Your task to perform on an android device: turn on the 24-hour format for clock Image 0: 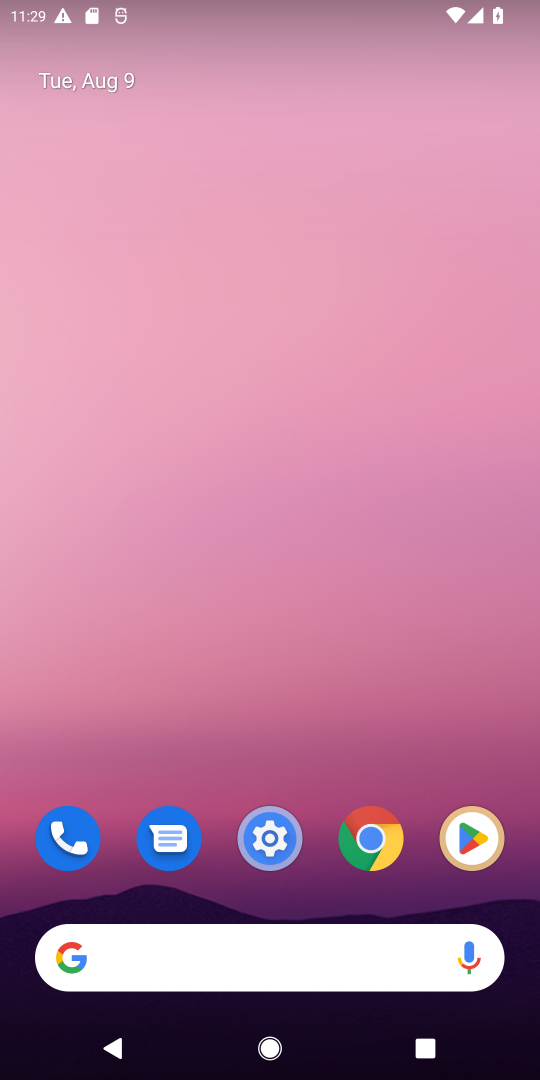
Step 0: drag from (310, 645) to (320, 317)
Your task to perform on an android device: turn on the 24-hour format for clock Image 1: 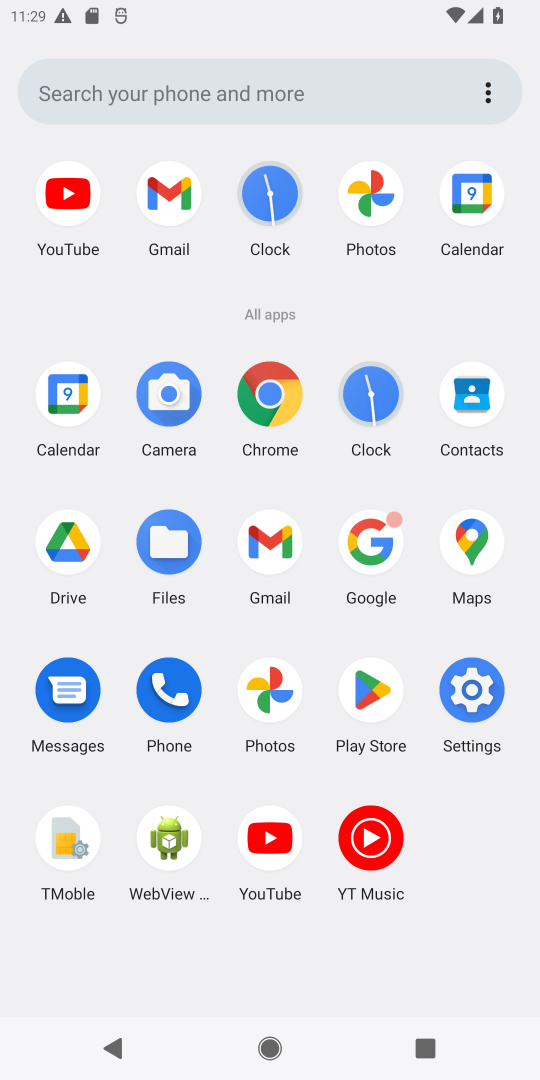
Step 1: click (369, 400)
Your task to perform on an android device: turn on the 24-hour format for clock Image 2: 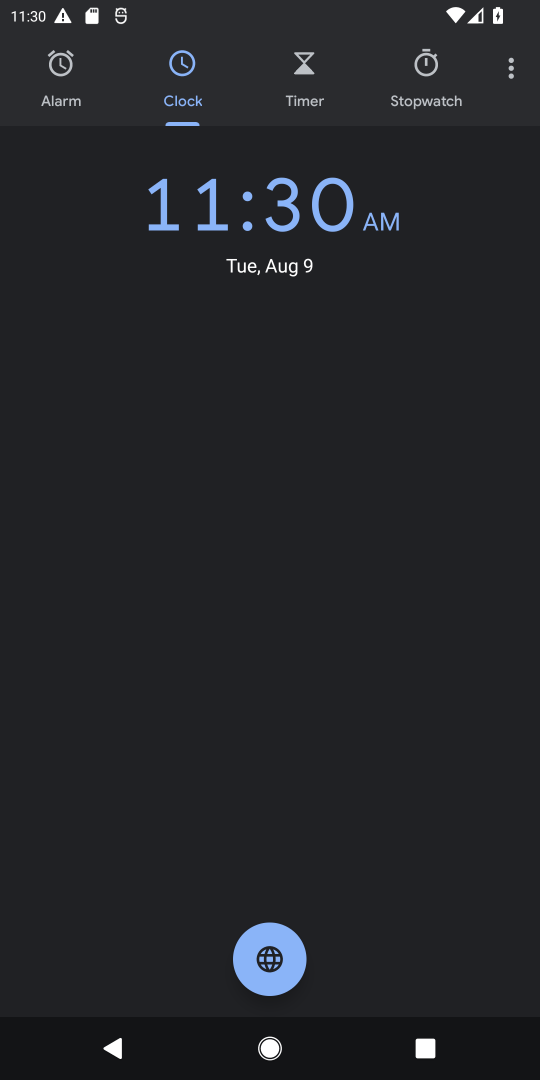
Step 2: click (507, 71)
Your task to perform on an android device: turn on the 24-hour format for clock Image 3: 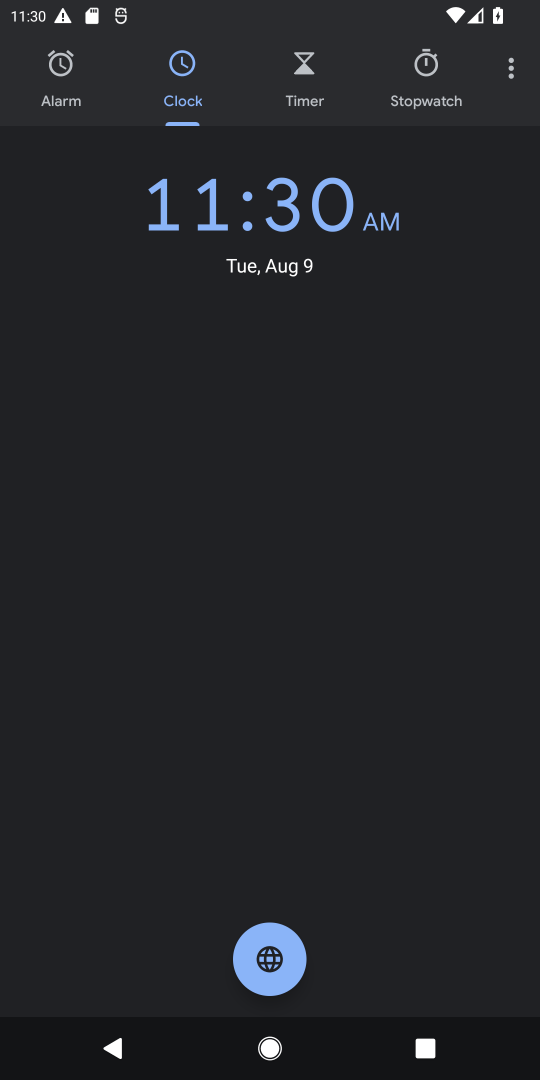
Step 3: click (509, 76)
Your task to perform on an android device: turn on the 24-hour format for clock Image 4: 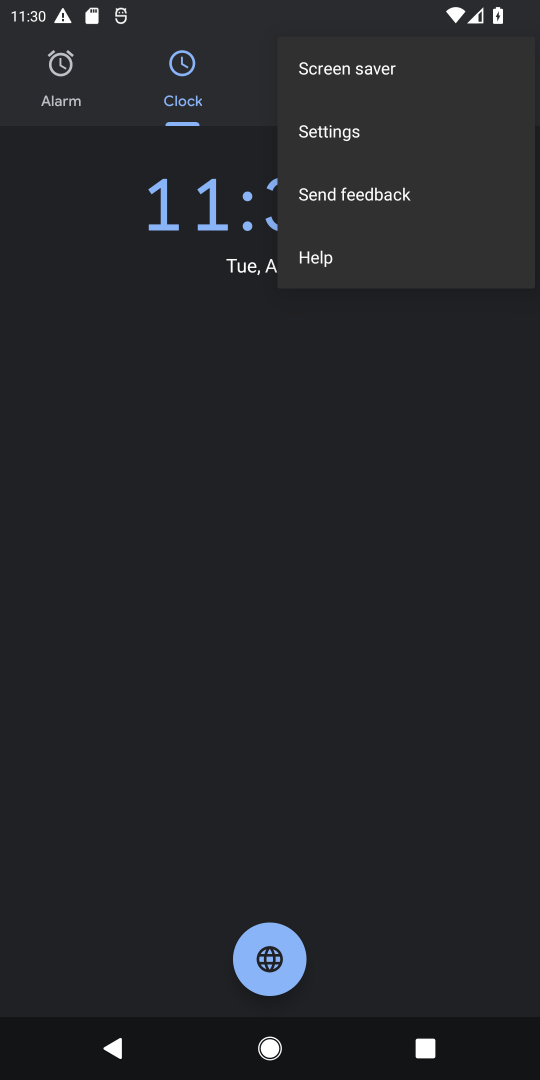
Step 4: click (329, 145)
Your task to perform on an android device: turn on the 24-hour format for clock Image 5: 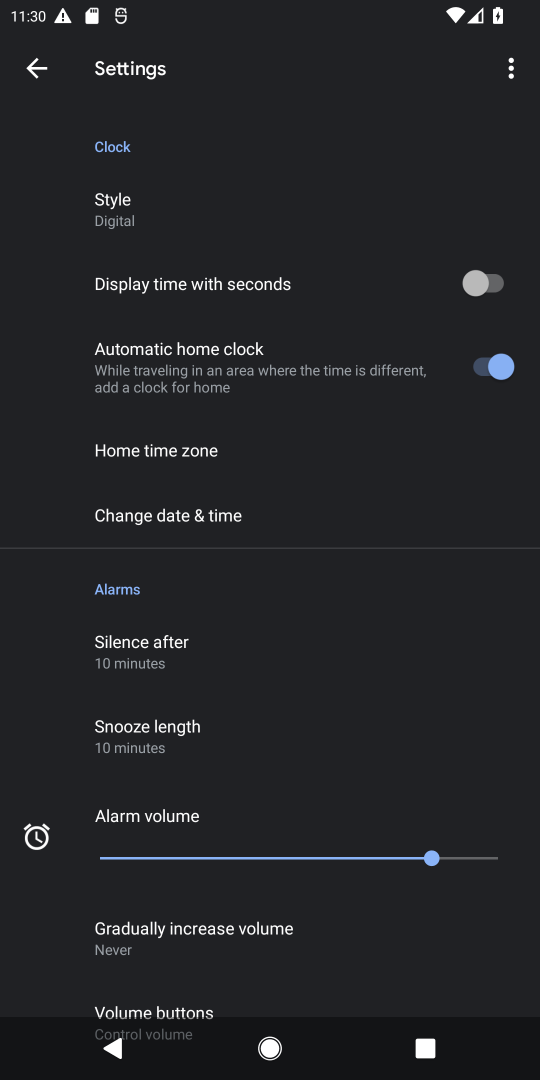
Step 5: drag from (146, 800) to (146, 352)
Your task to perform on an android device: turn on the 24-hour format for clock Image 6: 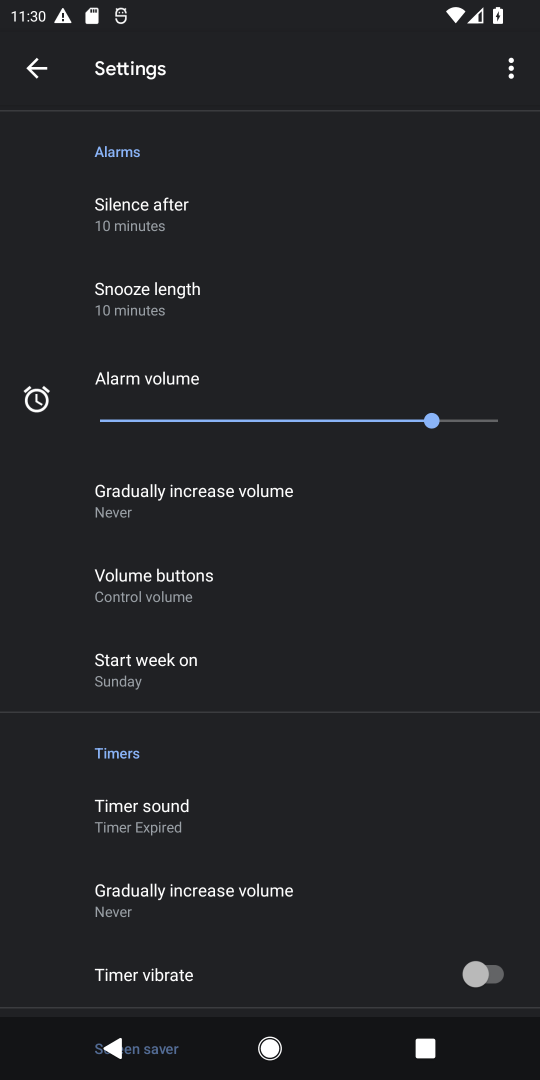
Step 6: drag from (159, 931) to (138, 482)
Your task to perform on an android device: turn on the 24-hour format for clock Image 7: 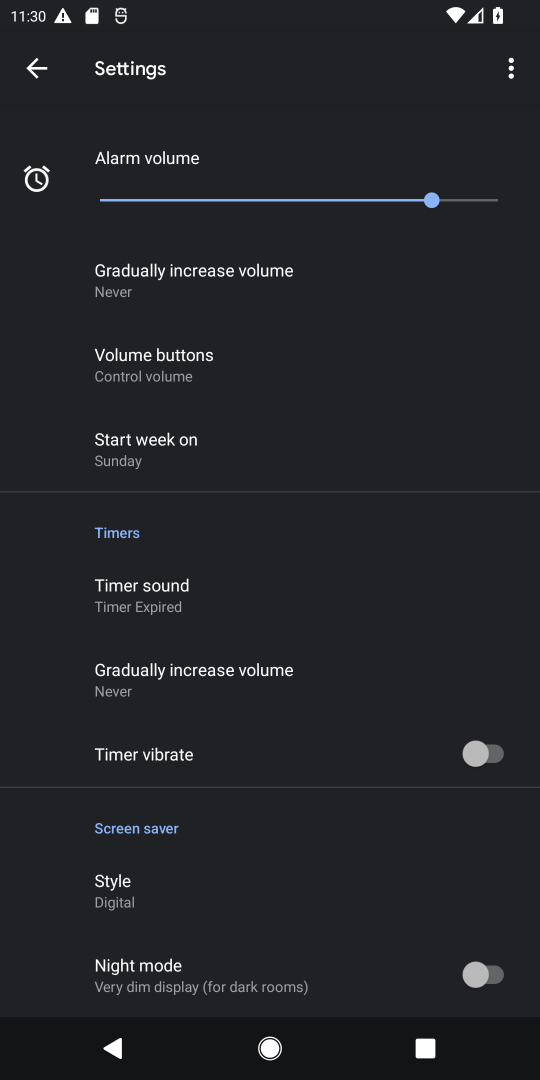
Step 7: drag from (144, 978) to (143, 517)
Your task to perform on an android device: turn on the 24-hour format for clock Image 8: 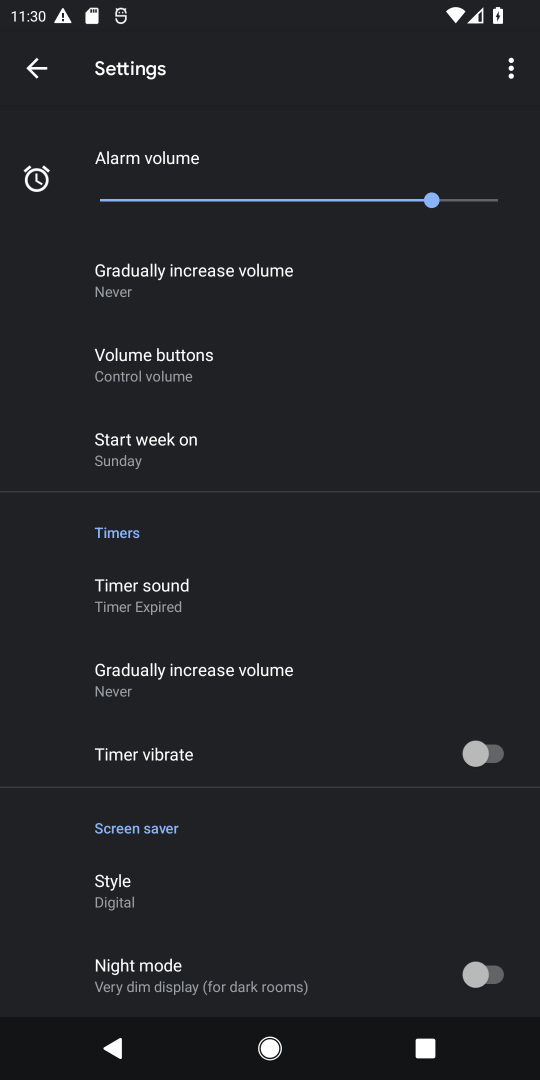
Step 8: drag from (172, 225) to (210, 768)
Your task to perform on an android device: turn on the 24-hour format for clock Image 9: 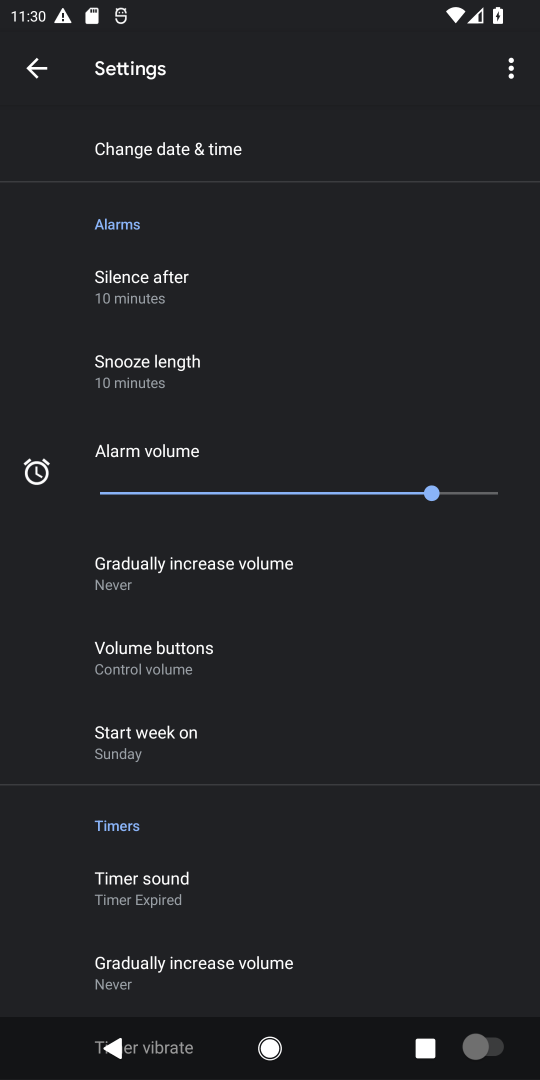
Step 9: drag from (215, 232) to (214, 827)
Your task to perform on an android device: turn on the 24-hour format for clock Image 10: 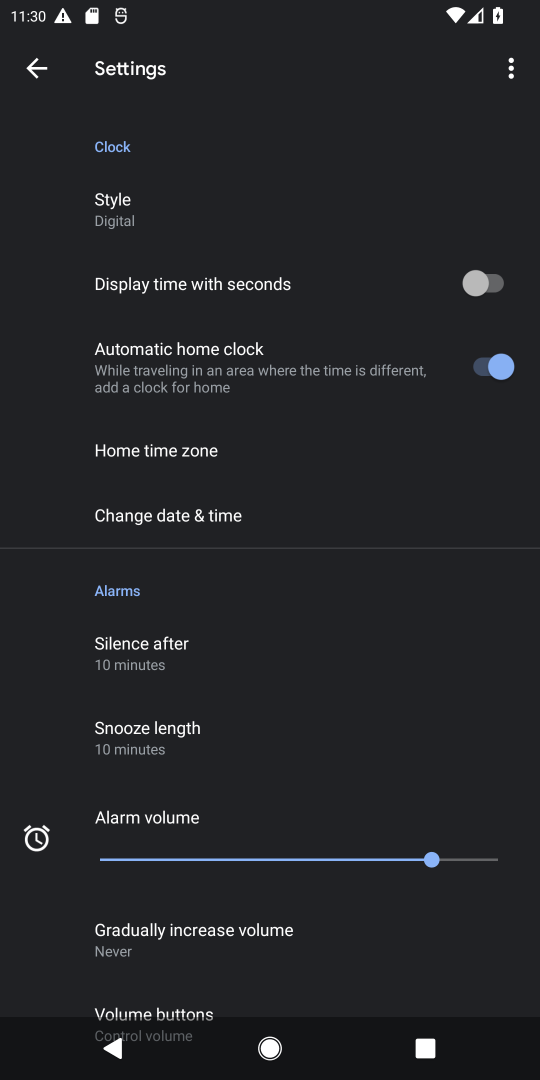
Step 10: click (184, 510)
Your task to perform on an android device: turn on the 24-hour format for clock Image 11: 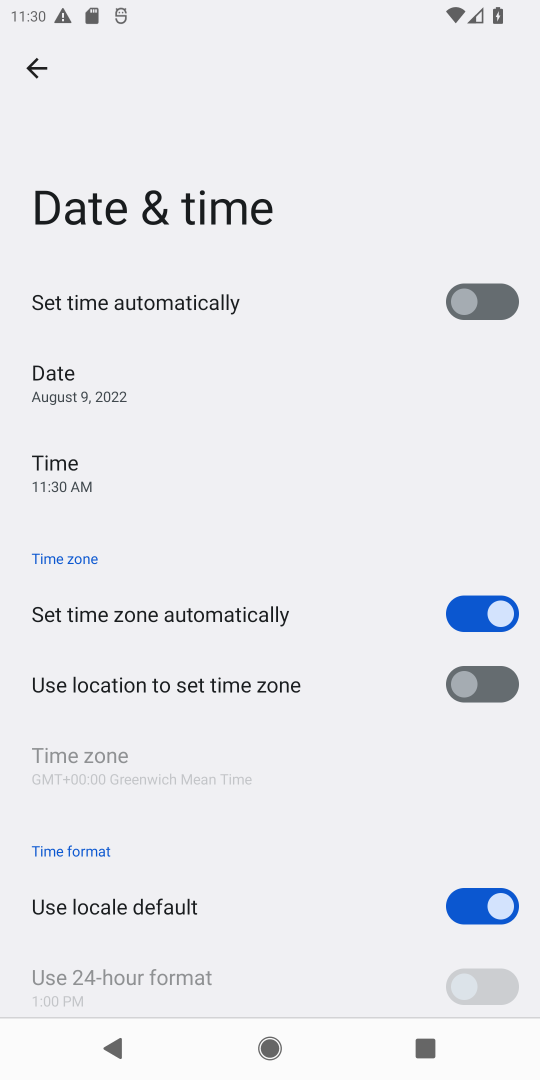
Step 11: click (109, 756)
Your task to perform on an android device: turn on the 24-hour format for clock Image 12: 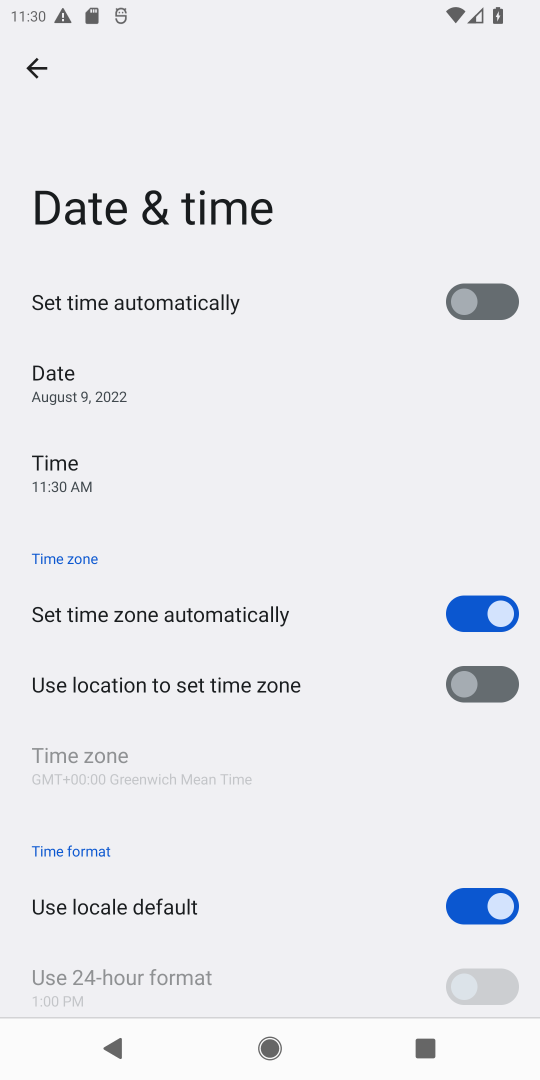
Step 12: drag from (171, 853) to (166, 488)
Your task to perform on an android device: turn on the 24-hour format for clock Image 13: 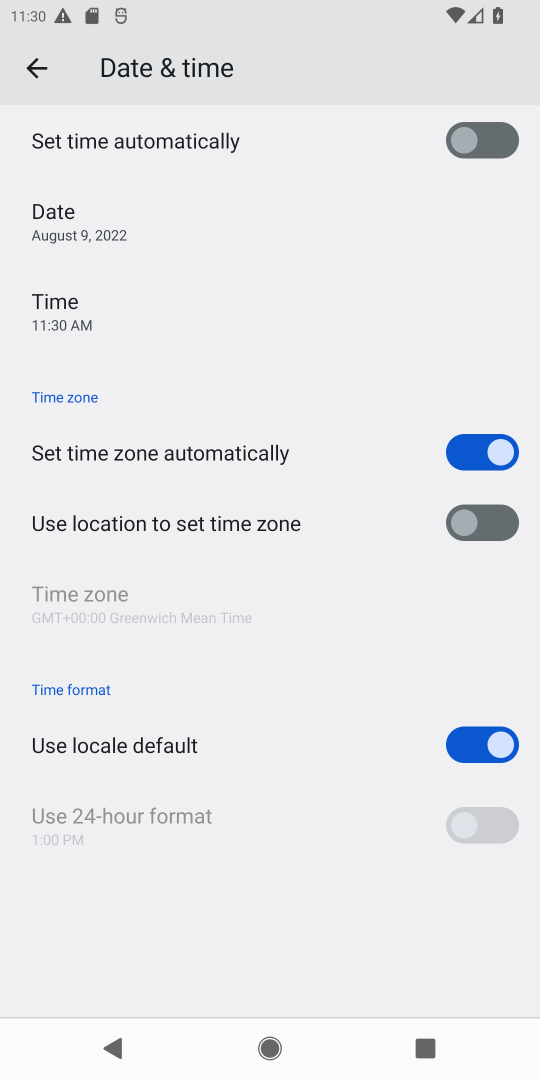
Step 13: click (504, 830)
Your task to perform on an android device: turn on the 24-hour format for clock Image 14: 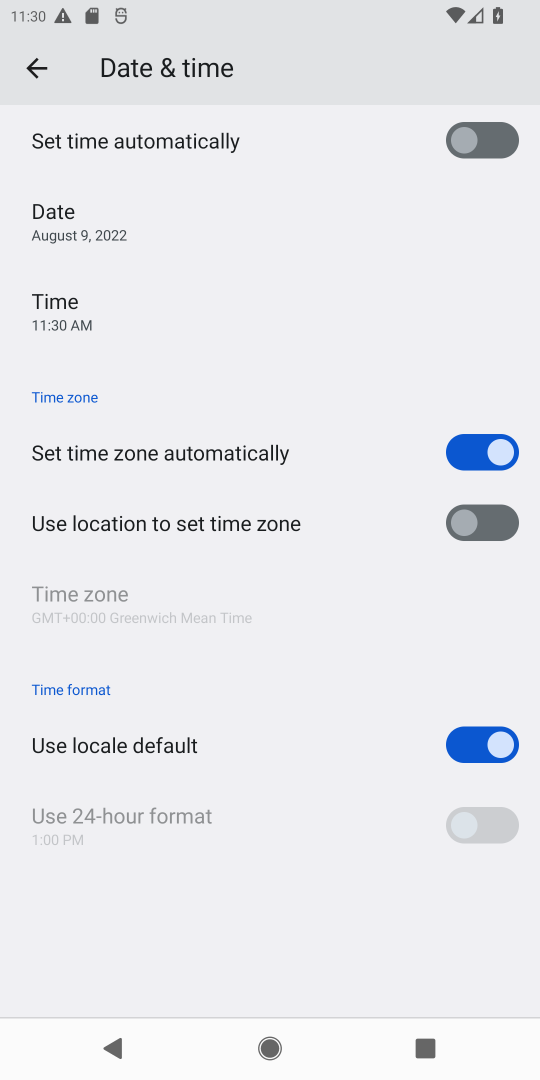
Step 14: click (471, 743)
Your task to perform on an android device: turn on the 24-hour format for clock Image 15: 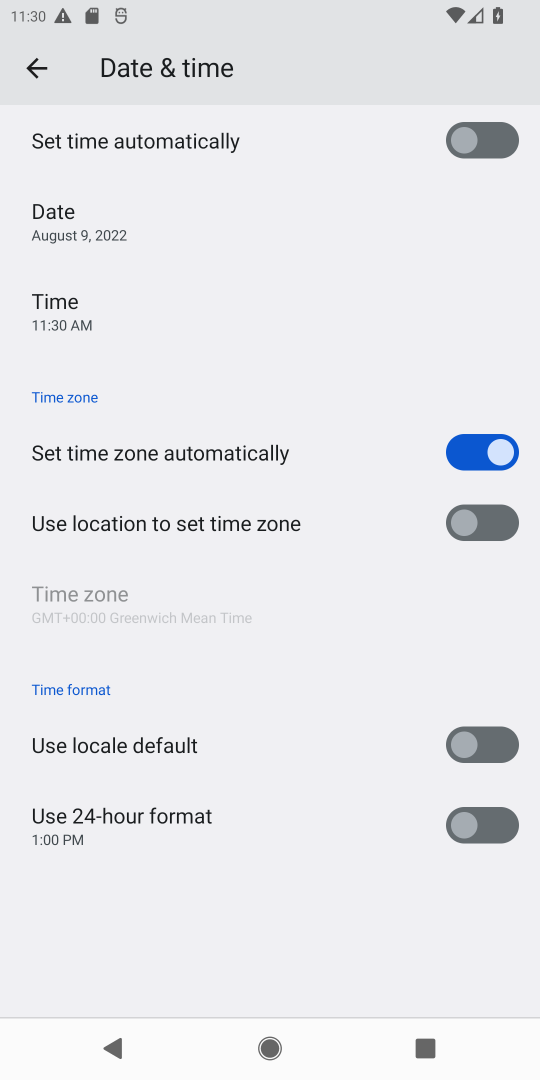
Step 15: click (491, 825)
Your task to perform on an android device: turn on the 24-hour format for clock Image 16: 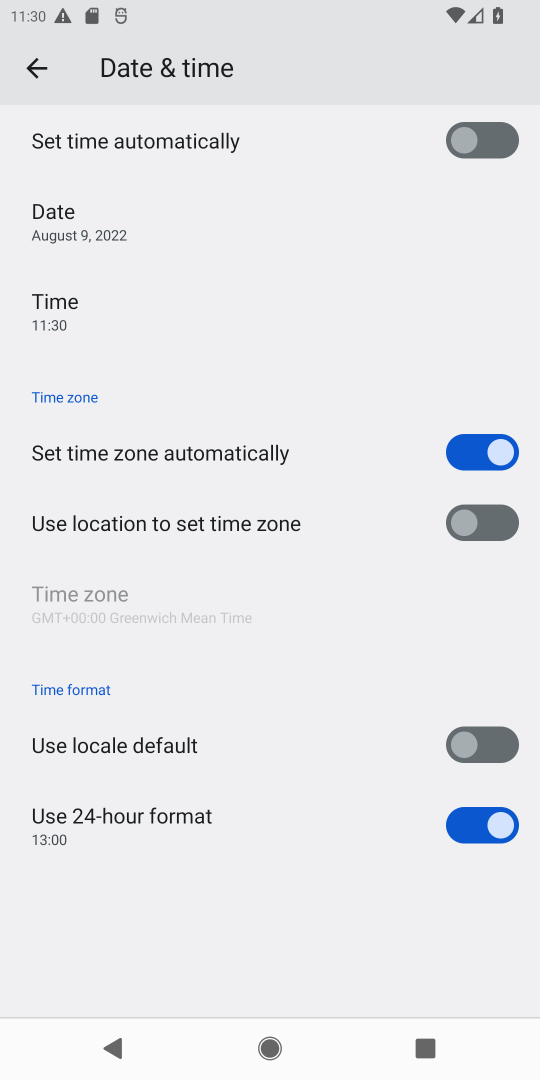
Step 16: task complete